Your task to perform on an android device: Go to ESPN.com Image 0: 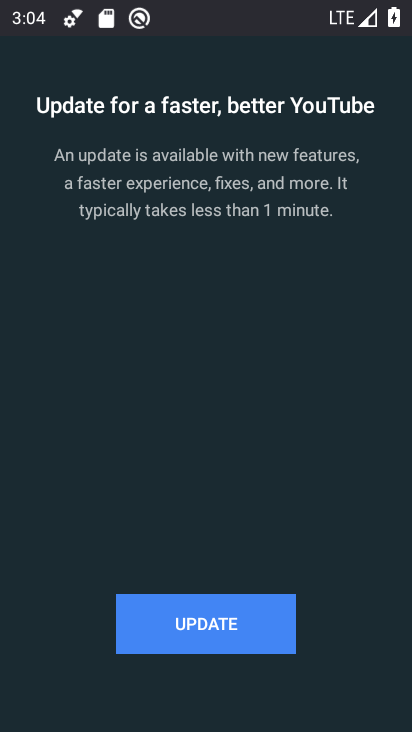
Step 0: press home button
Your task to perform on an android device: Go to ESPN.com Image 1: 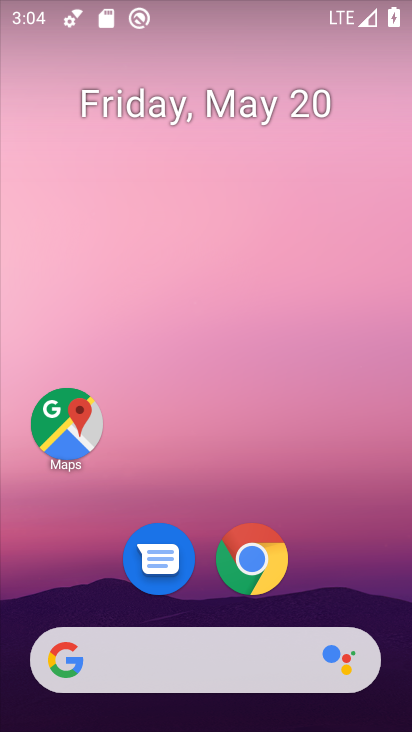
Step 1: click (240, 662)
Your task to perform on an android device: Go to ESPN.com Image 2: 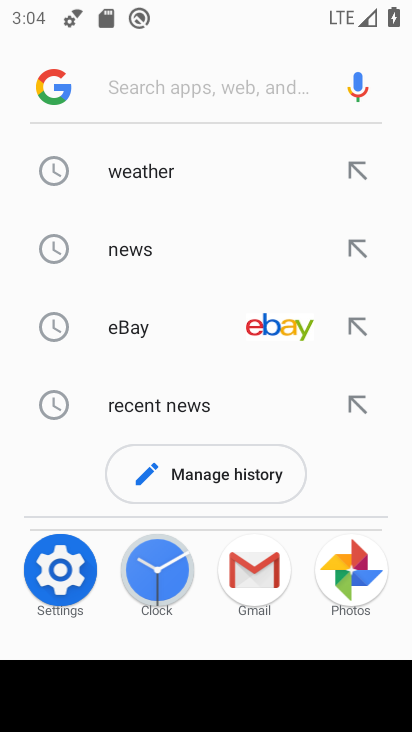
Step 2: type "espn.com"
Your task to perform on an android device: Go to ESPN.com Image 3: 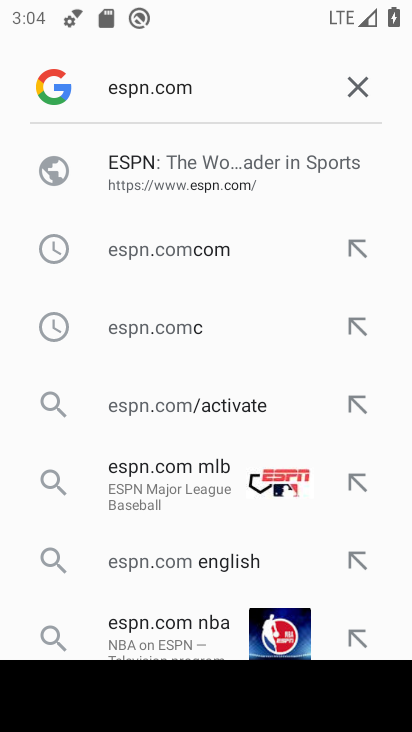
Step 3: click (169, 178)
Your task to perform on an android device: Go to ESPN.com Image 4: 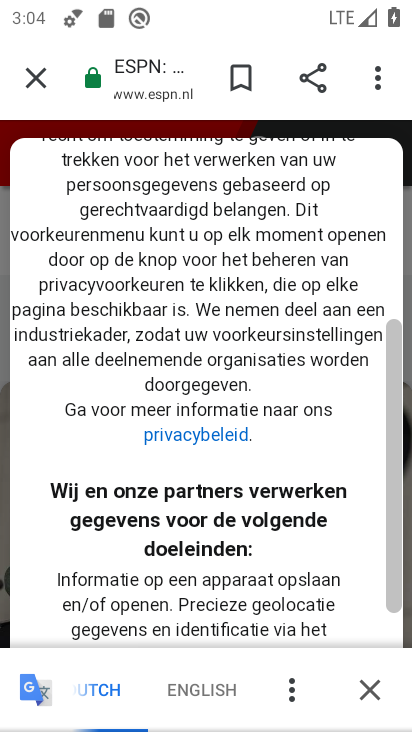
Step 4: task complete